Your task to perform on an android device: change the clock display to show seconds Image 0: 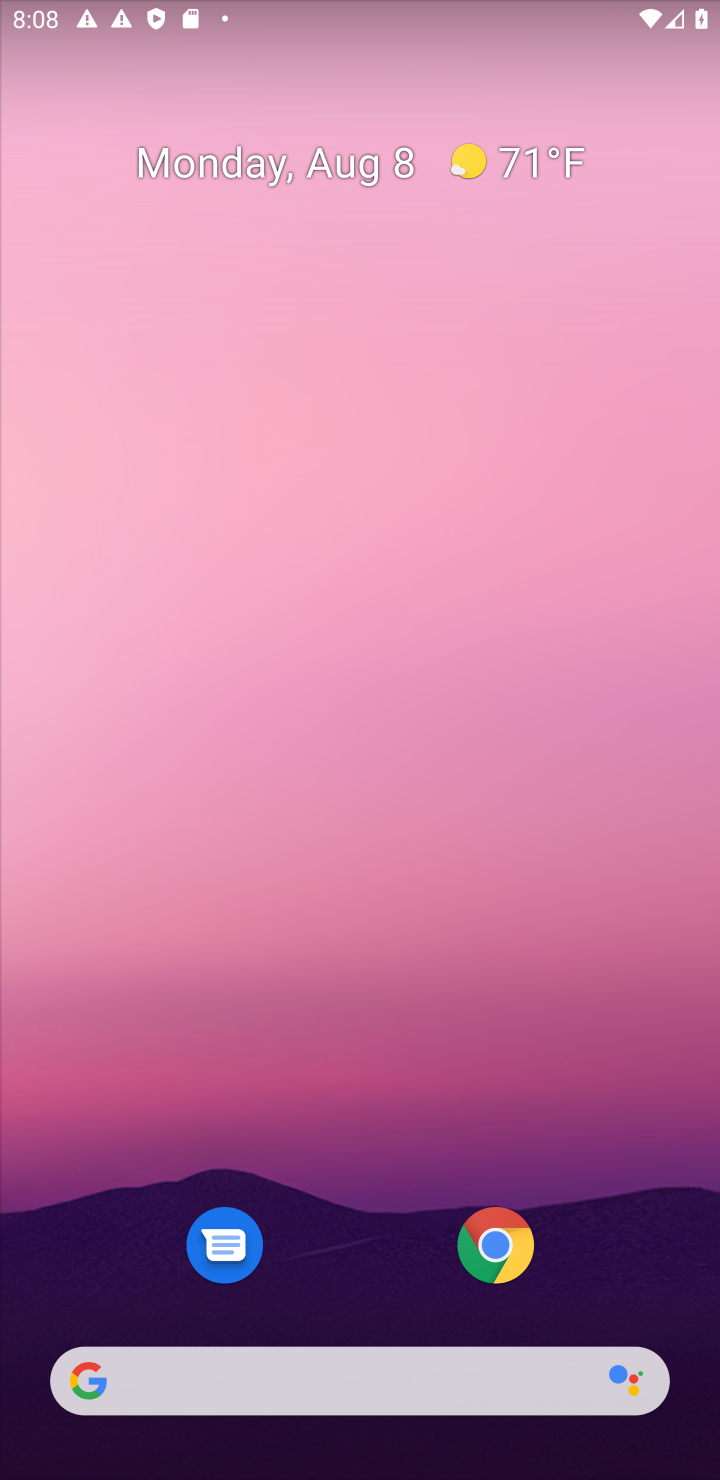
Step 0: drag from (320, 1319) to (422, 0)
Your task to perform on an android device: change the clock display to show seconds Image 1: 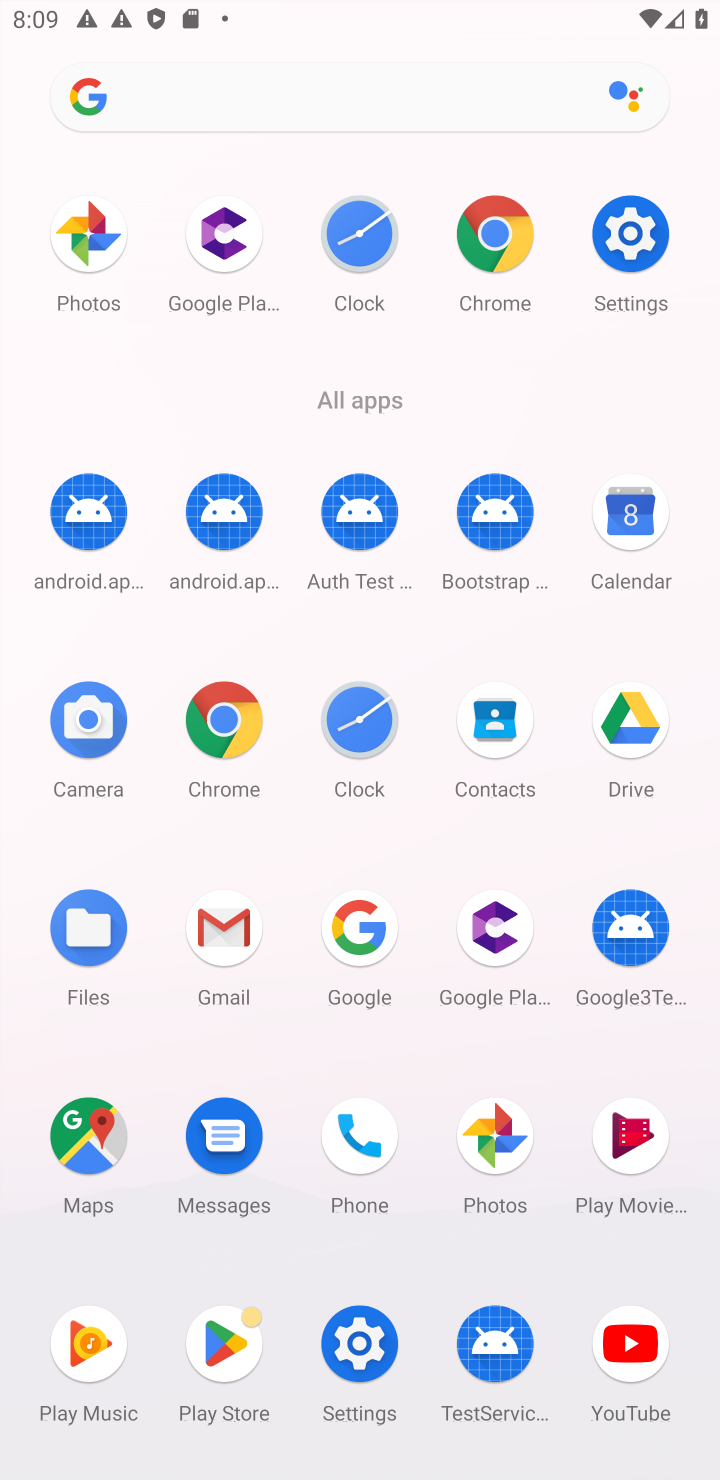
Step 1: click (365, 730)
Your task to perform on an android device: change the clock display to show seconds Image 2: 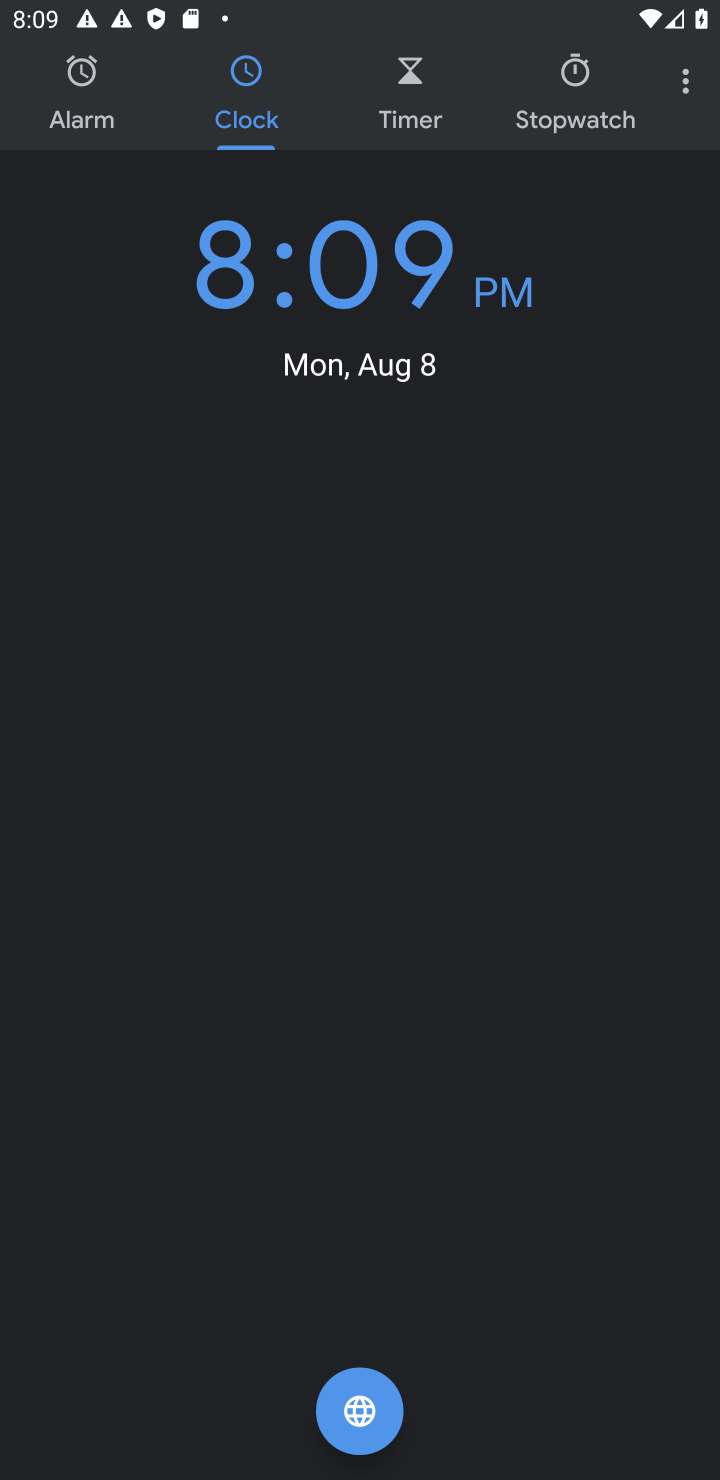
Step 2: click (673, 75)
Your task to perform on an android device: change the clock display to show seconds Image 3: 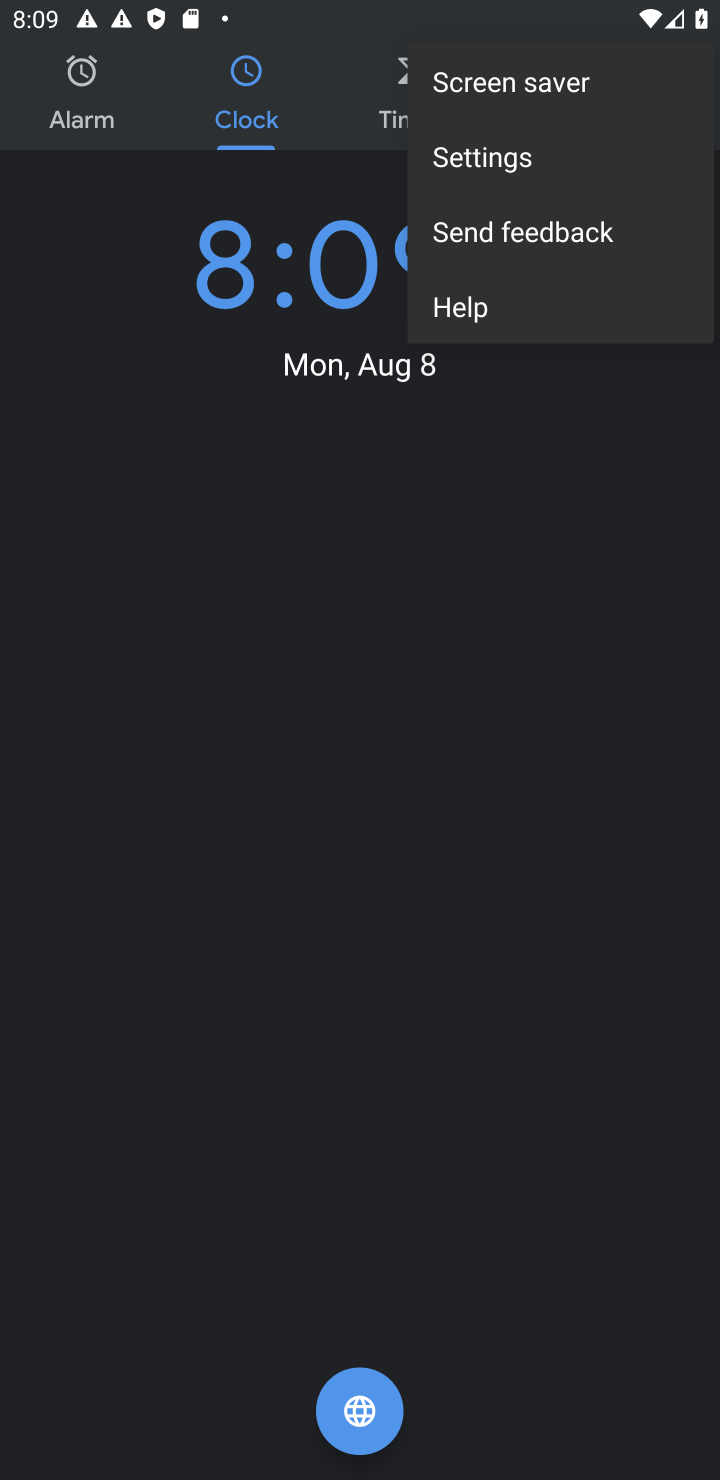
Step 3: click (504, 165)
Your task to perform on an android device: change the clock display to show seconds Image 4: 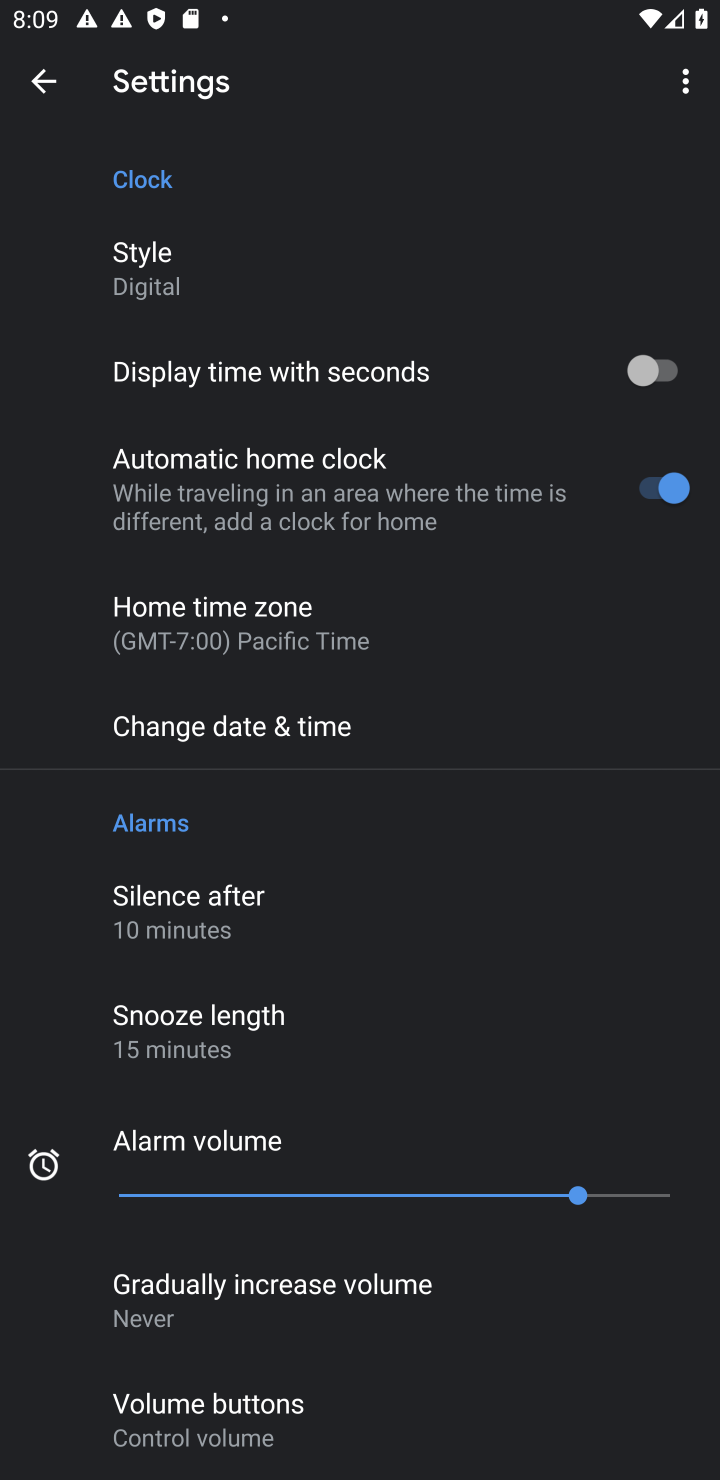
Step 4: click (151, 263)
Your task to perform on an android device: change the clock display to show seconds Image 5: 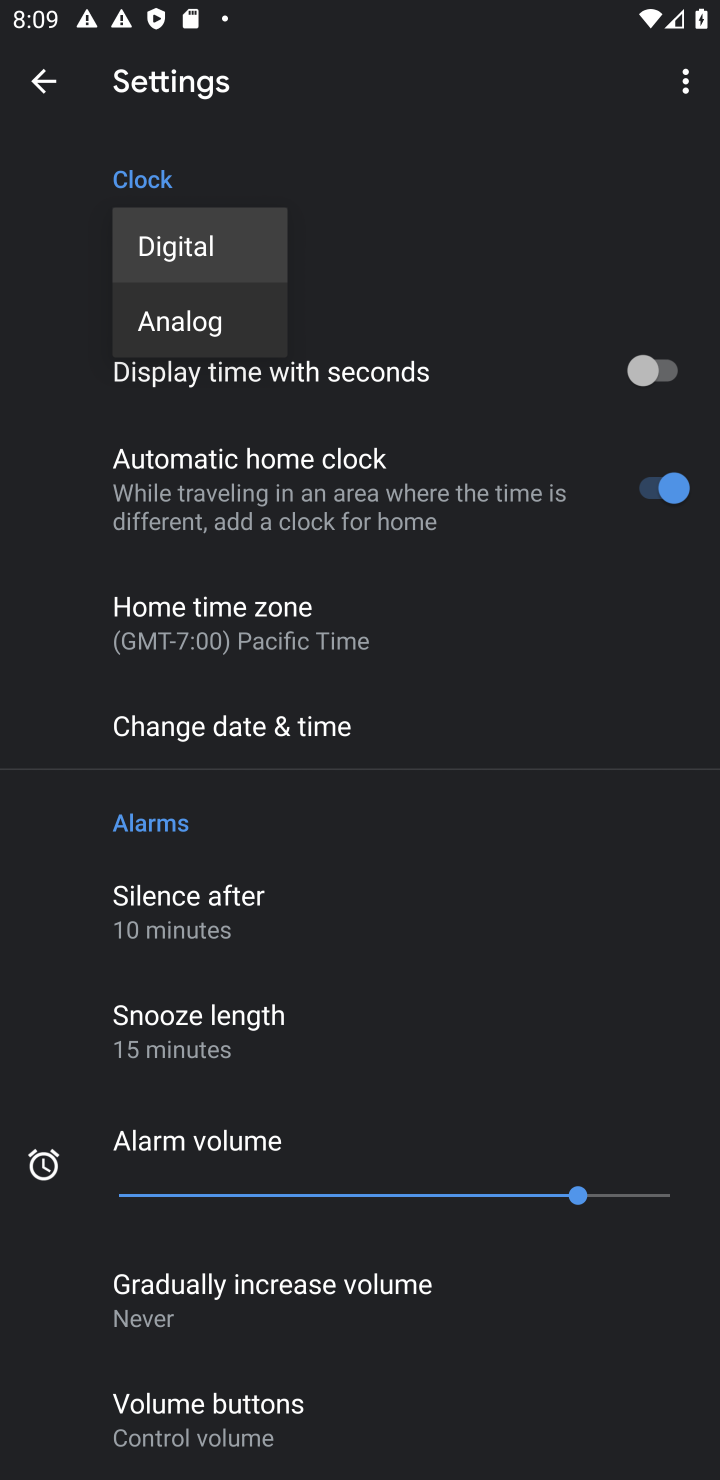
Step 5: click (205, 339)
Your task to perform on an android device: change the clock display to show seconds Image 6: 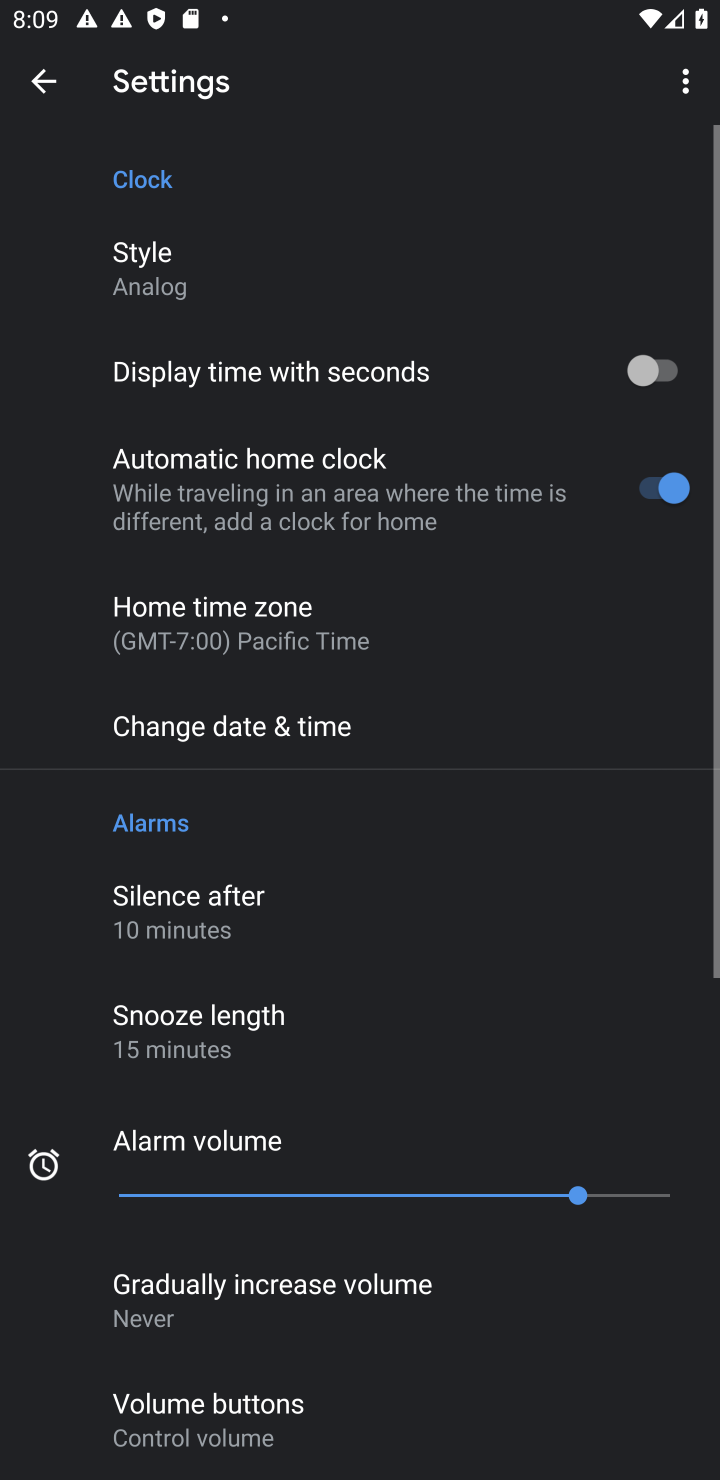
Step 6: click (691, 380)
Your task to perform on an android device: change the clock display to show seconds Image 7: 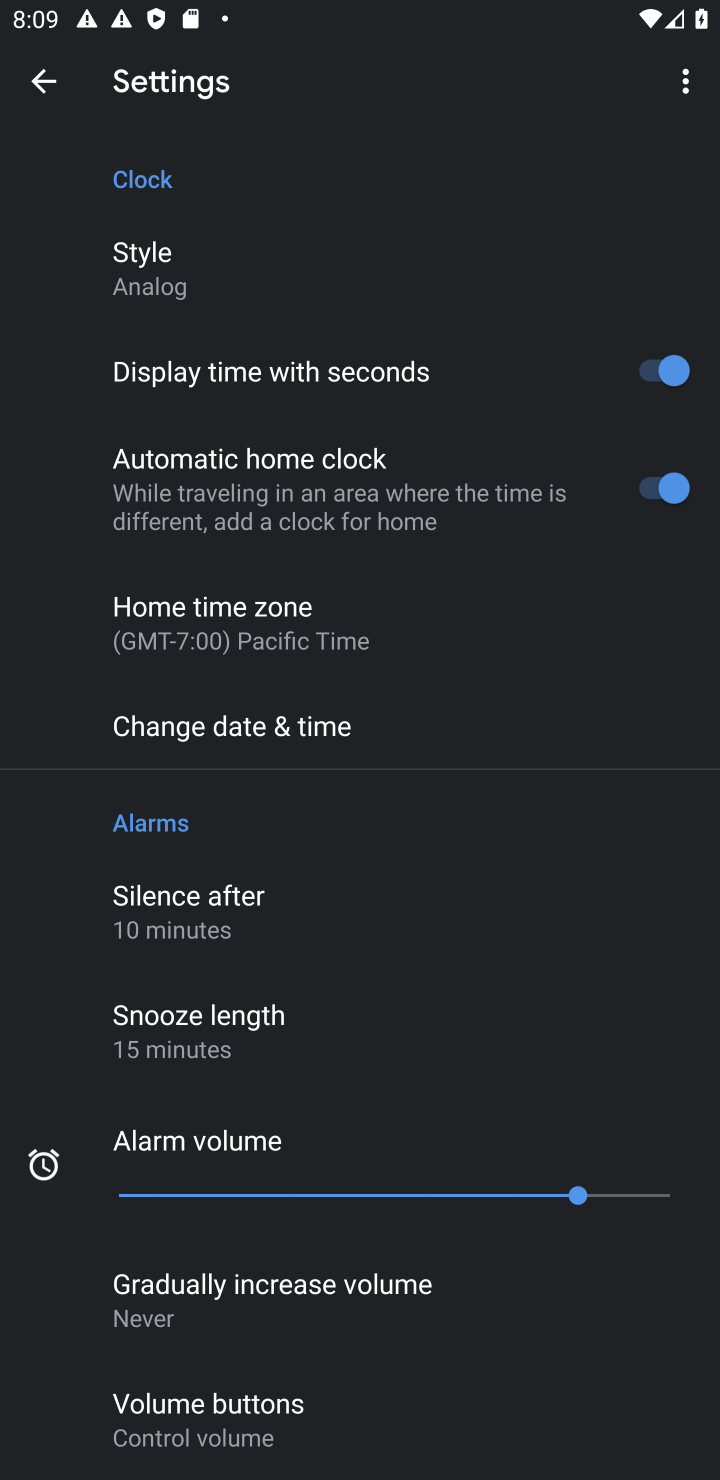
Step 7: task complete